Your task to perform on an android device: turn off translation in the chrome app Image 0: 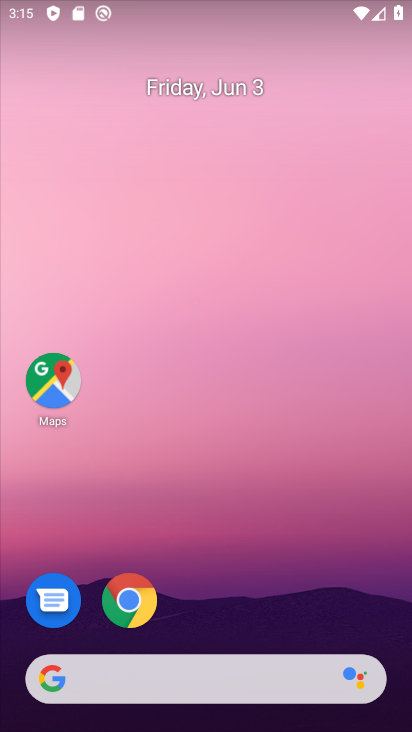
Step 0: drag from (345, 205) to (400, 17)
Your task to perform on an android device: turn off translation in the chrome app Image 1: 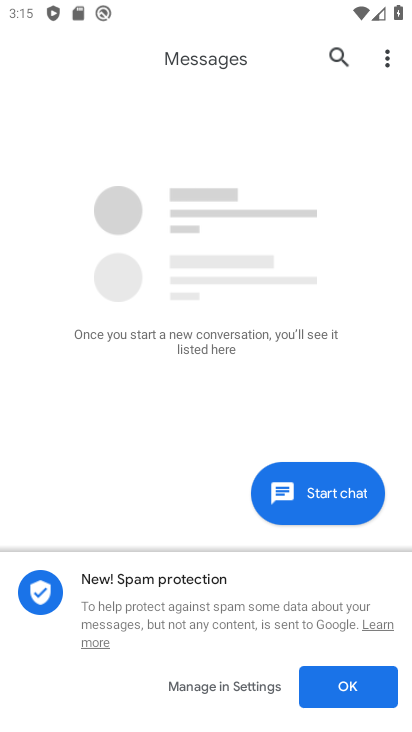
Step 1: press home button
Your task to perform on an android device: turn off translation in the chrome app Image 2: 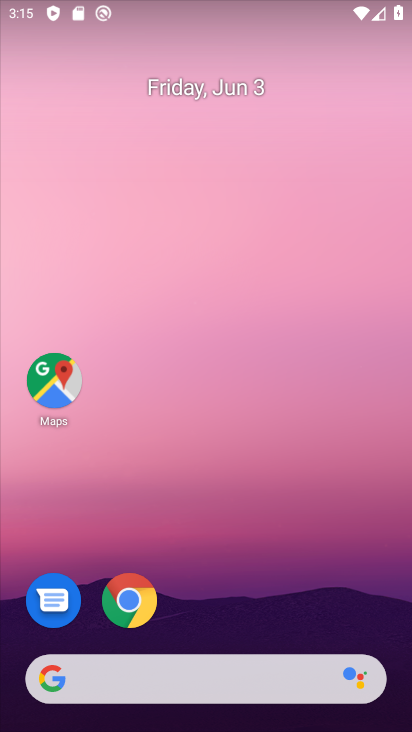
Step 2: click (148, 608)
Your task to perform on an android device: turn off translation in the chrome app Image 3: 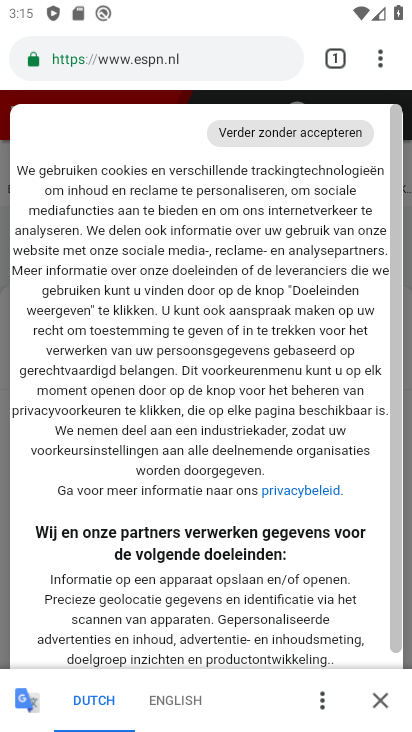
Step 3: click (386, 49)
Your task to perform on an android device: turn off translation in the chrome app Image 4: 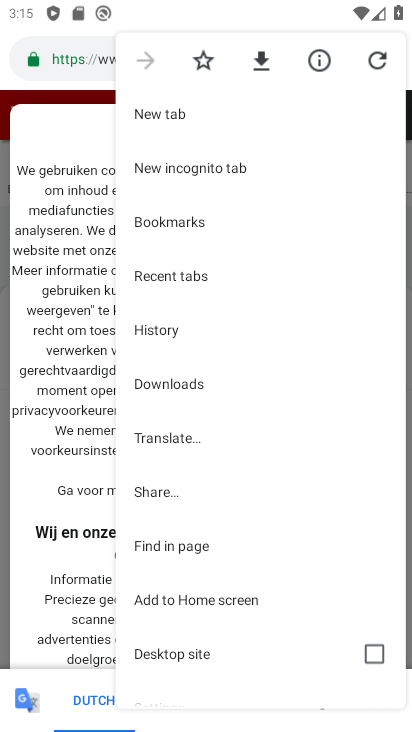
Step 4: drag from (178, 610) to (279, 193)
Your task to perform on an android device: turn off translation in the chrome app Image 5: 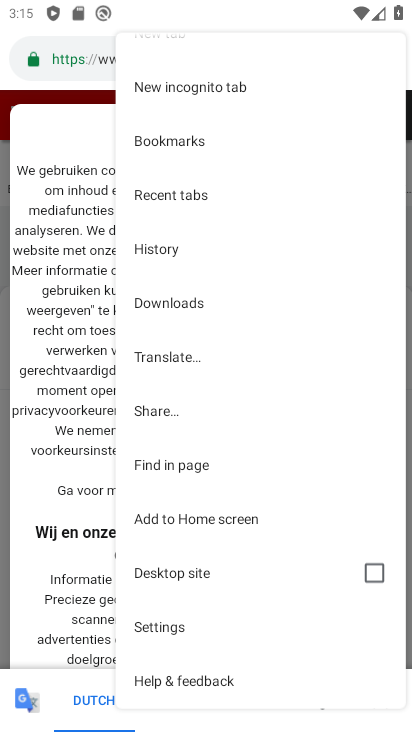
Step 5: click (172, 626)
Your task to perform on an android device: turn off translation in the chrome app Image 6: 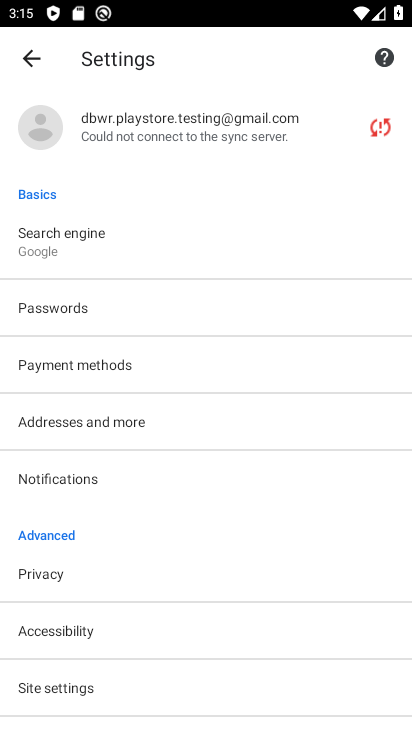
Step 6: drag from (111, 550) to (170, 145)
Your task to perform on an android device: turn off translation in the chrome app Image 7: 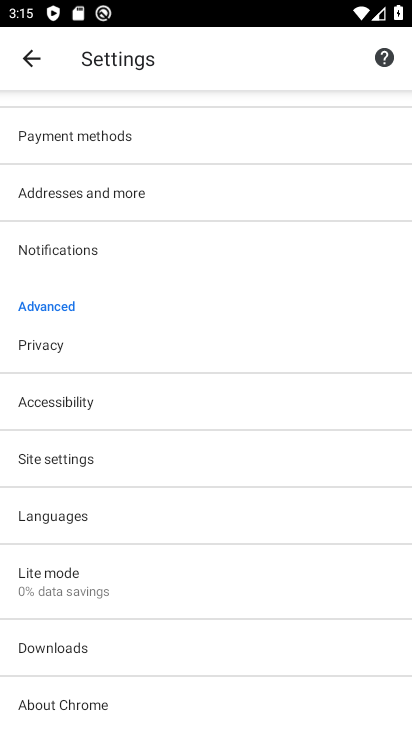
Step 7: click (88, 516)
Your task to perform on an android device: turn off translation in the chrome app Image 8: 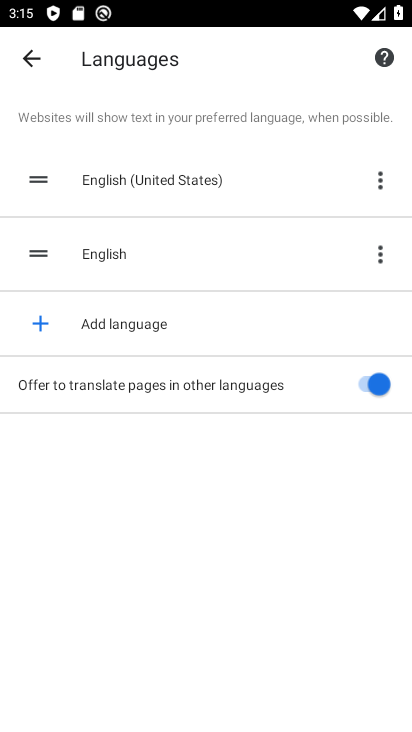
Step 8: click (357, 382)
Your task to perform on an android device: turn off translation in the chrome app Image 9: 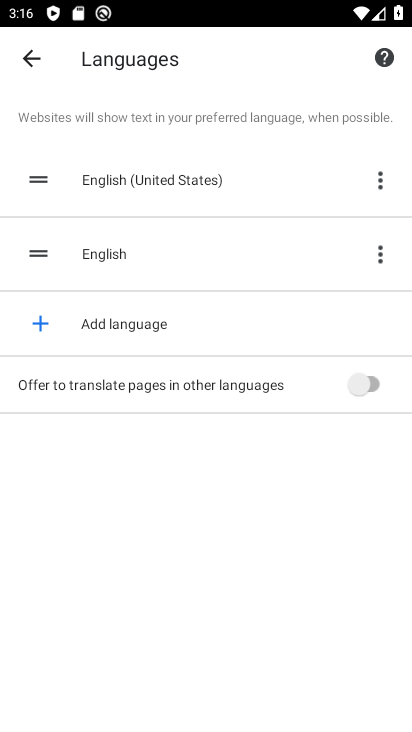
Step 9: task complete